Your task to perform on an android device: Open calendar and show me the third week of next month Image 0: 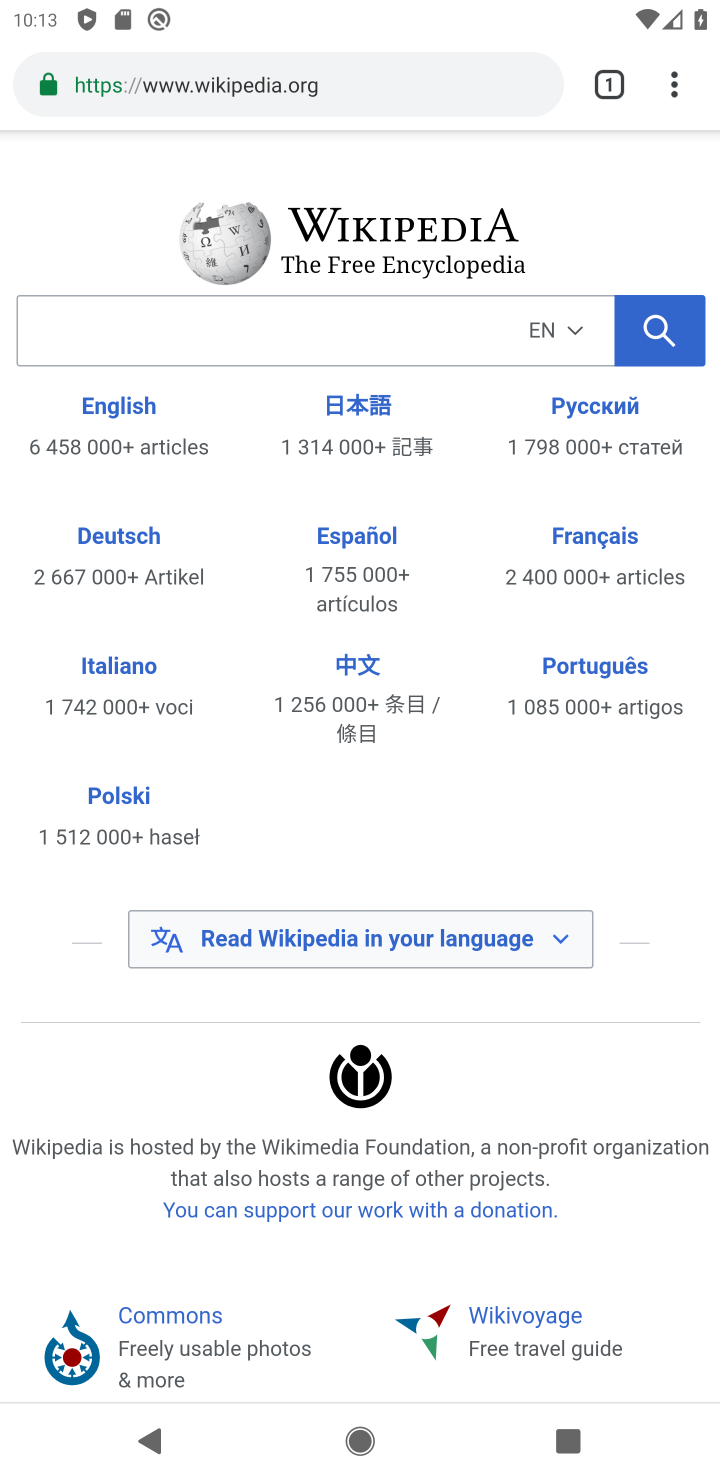
Step 0: press home button
Your task to perform on an android device: Open calendar and show me the third week of next month Image 1: 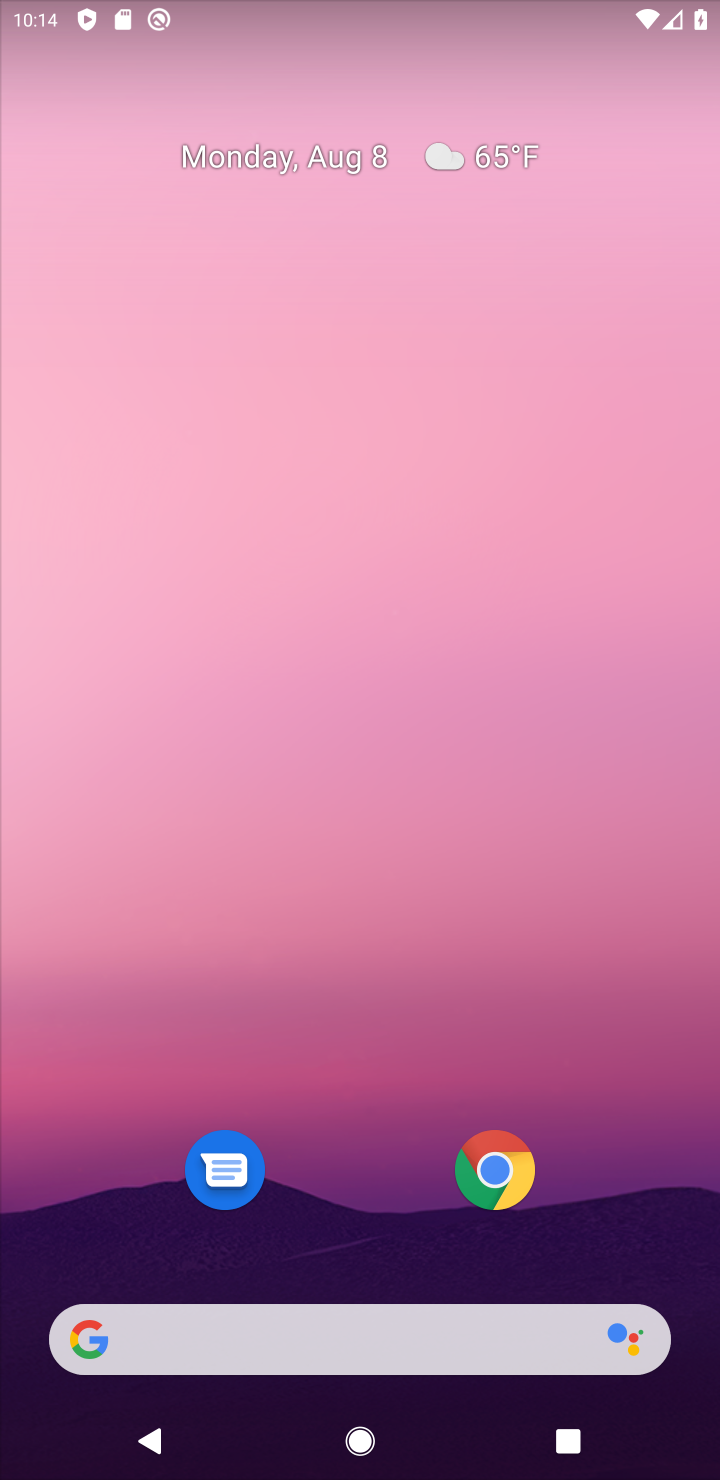
Step 1: drag from (399, 1292) to (376, 443)
Your task to perform on an android device: Open calendar and show me the third week of next month Image 2: 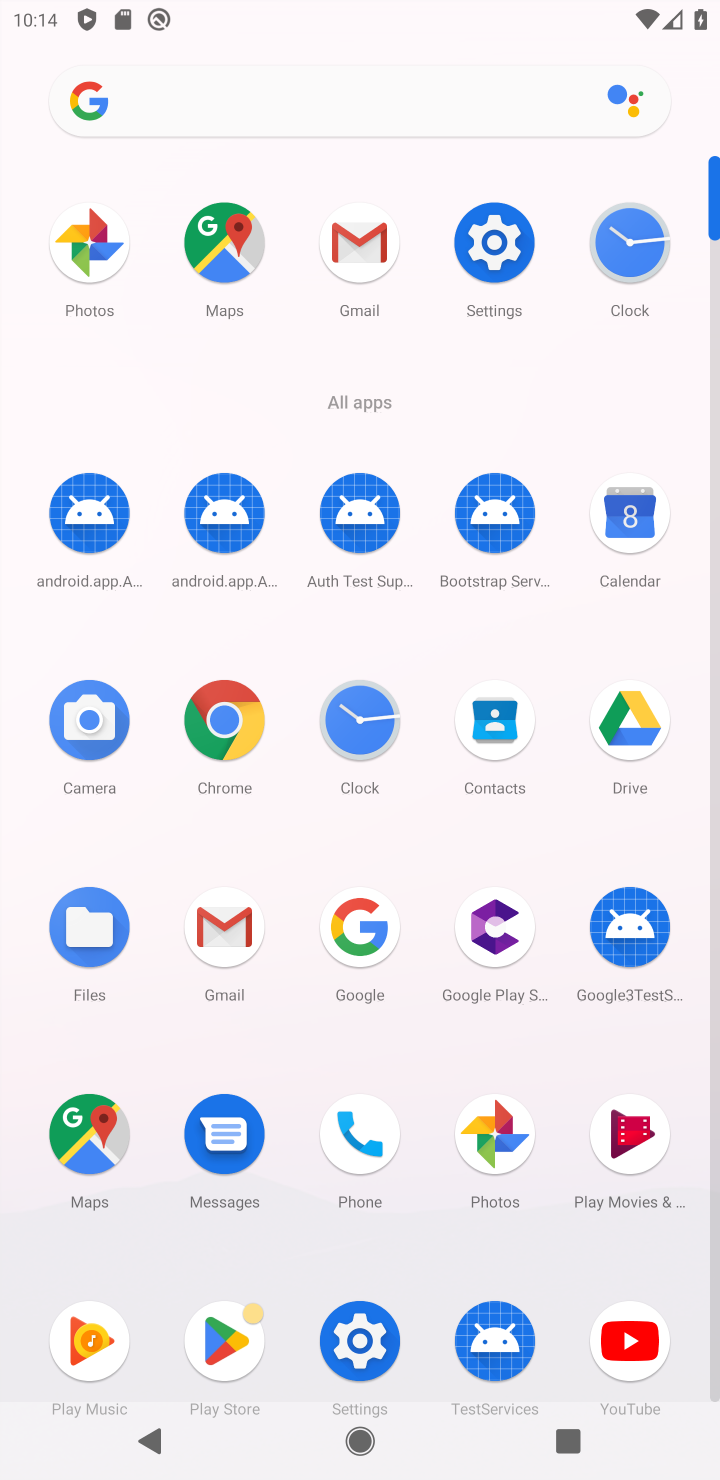
Step 2: click (630, 504)
Your task to perform on an android device: Open calendar and show me the third week of next month Image 3: 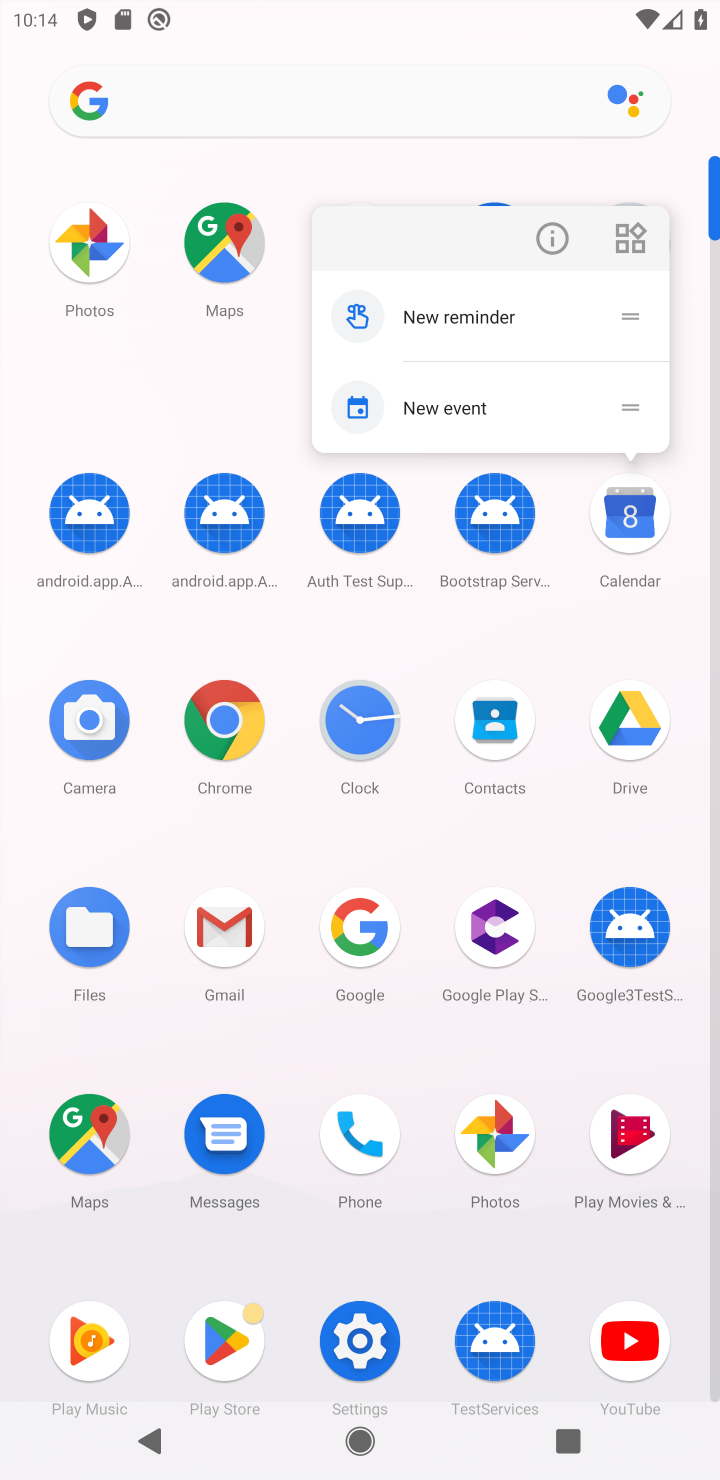
Step 3: click (630, 504)
Your task to perform on an android device: Open calendar and show me the third week of next month Image 4: 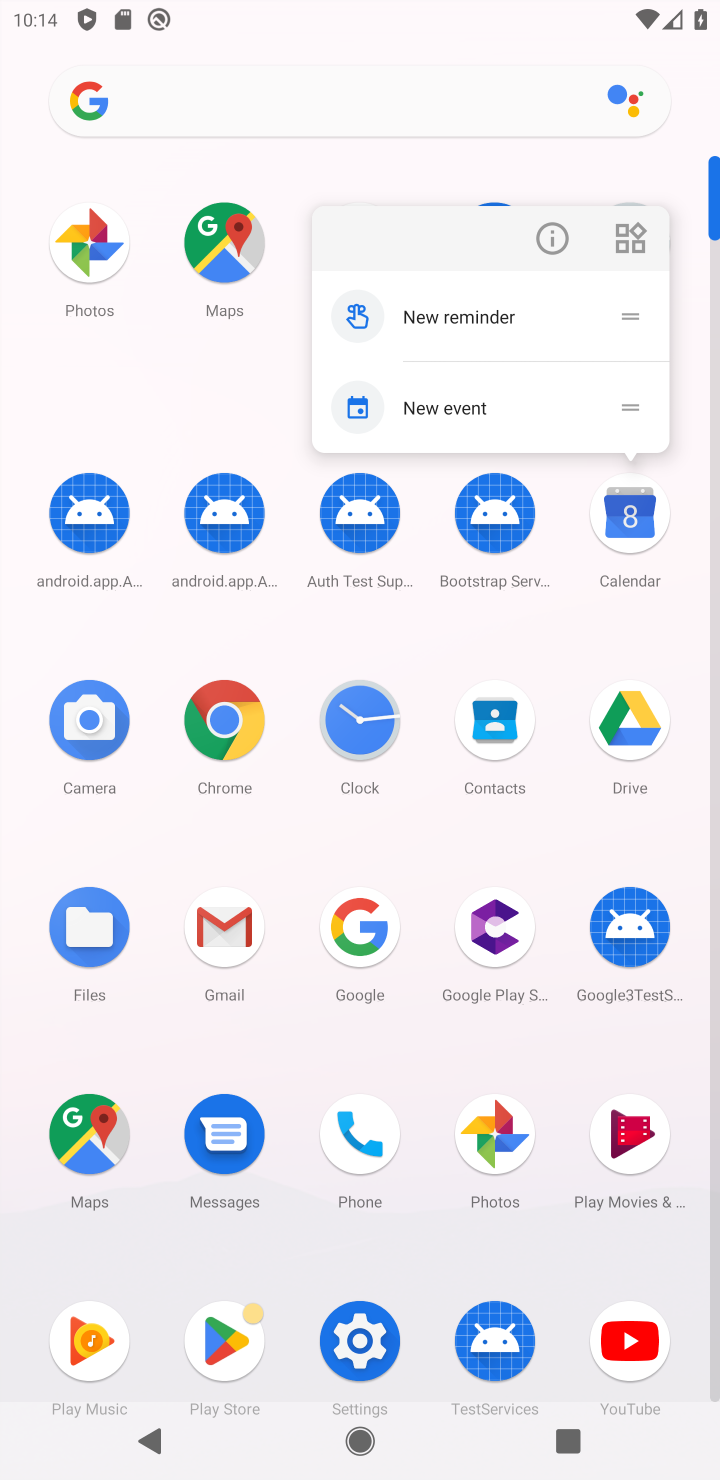
Step 4: click (645, 530)
Your task to perform on an android device: Open calendar and show me the third week of next month Image 5: 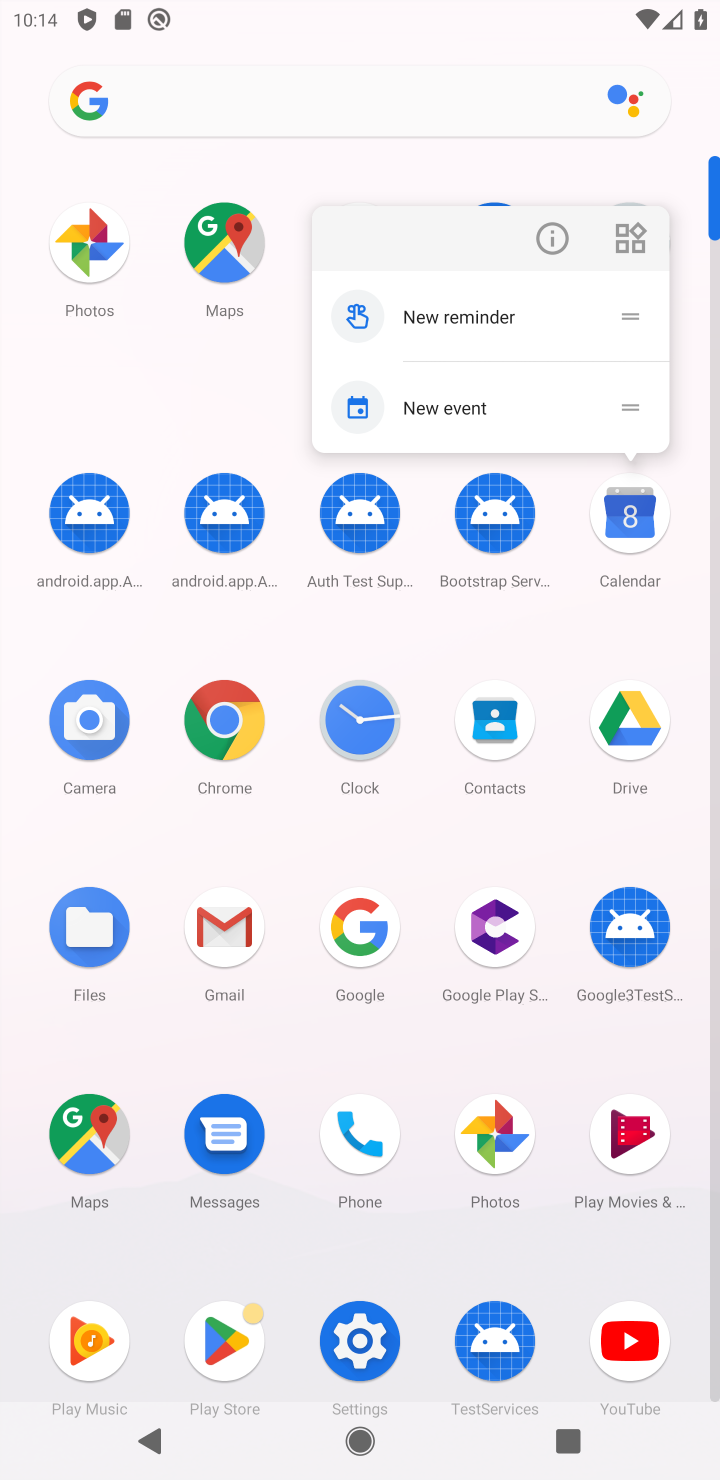
Step 5: click (645, 524)
Your task to perform on an android device: Open calendar and show me the third week of next month Image 6: 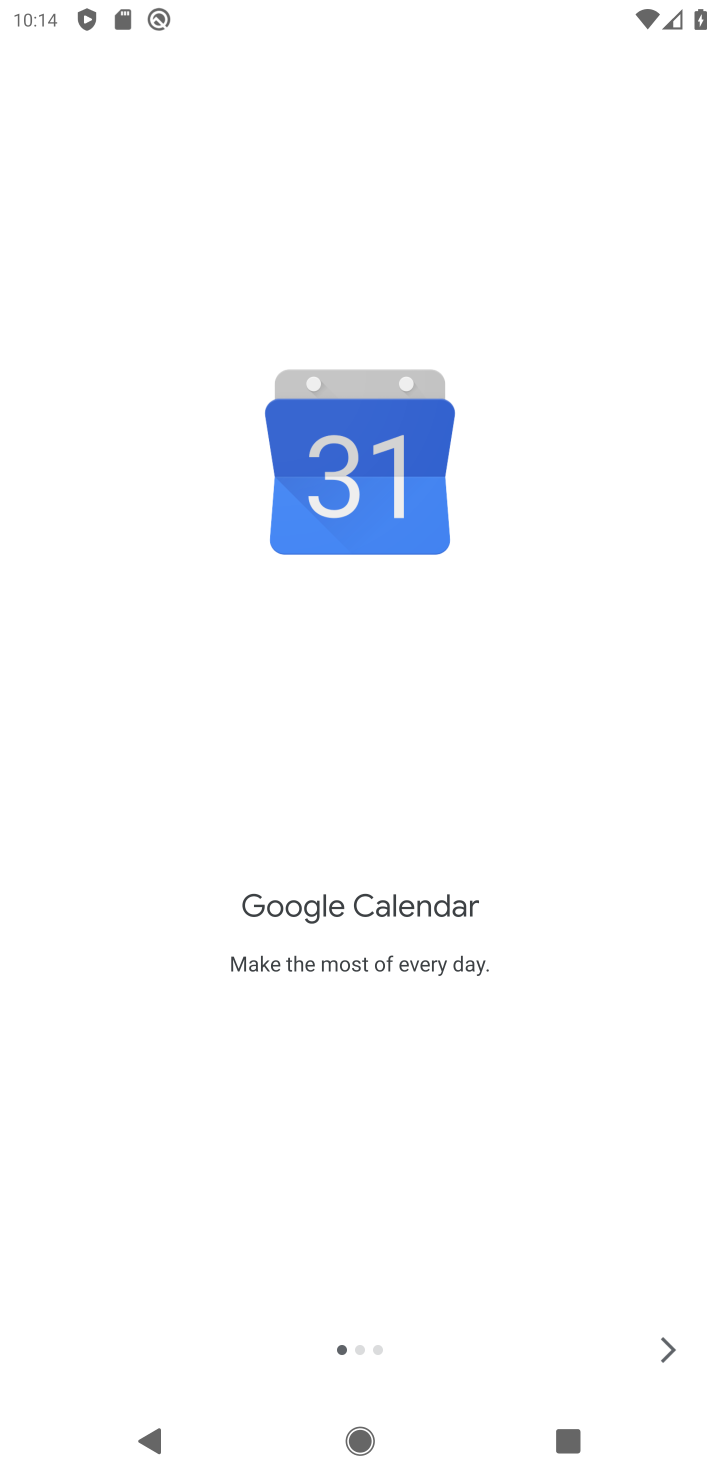
Step 6: click (658, 1357)
Your task to perform on an android device: Open calendar and show me the third week of next month Image 7: 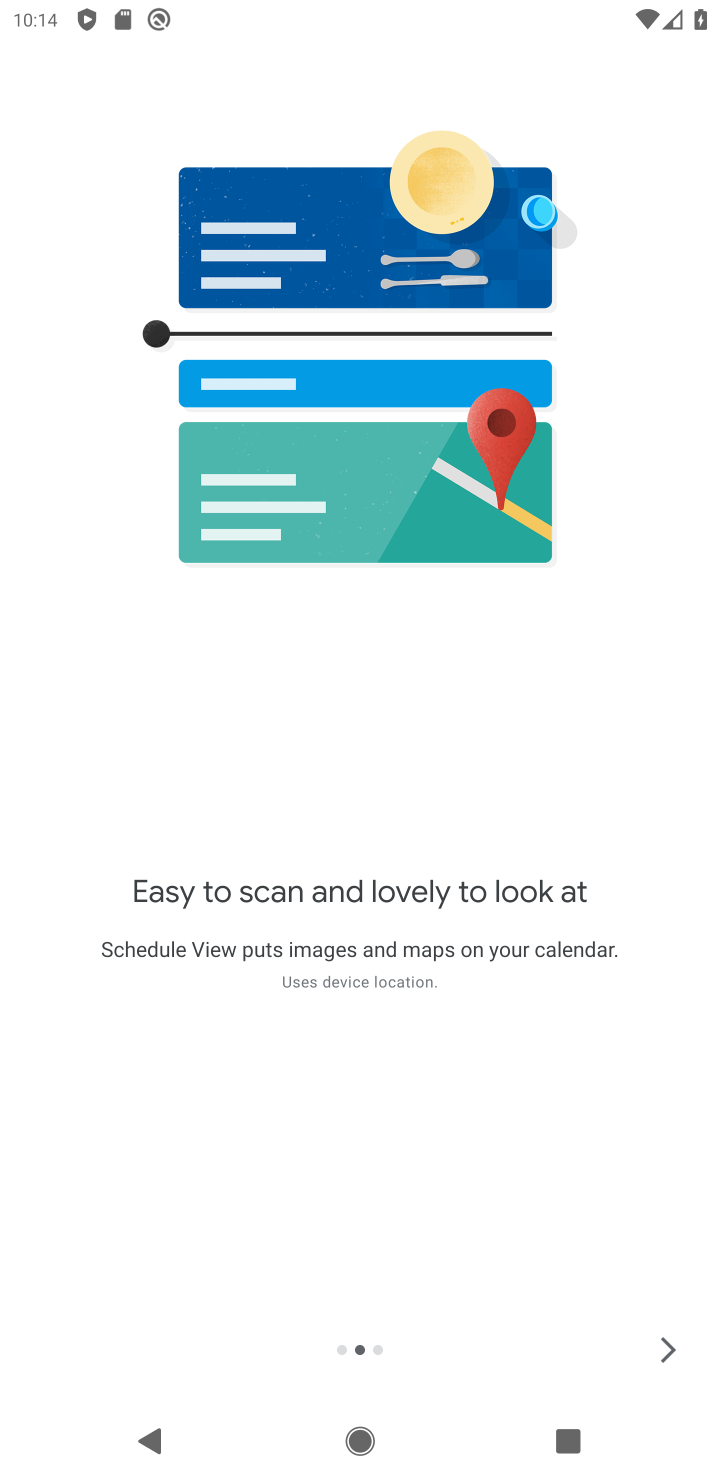
Step 7: click (658, 1357)
Your task to perform on an android device: Open calendar and show me the third week of next month Image 8: 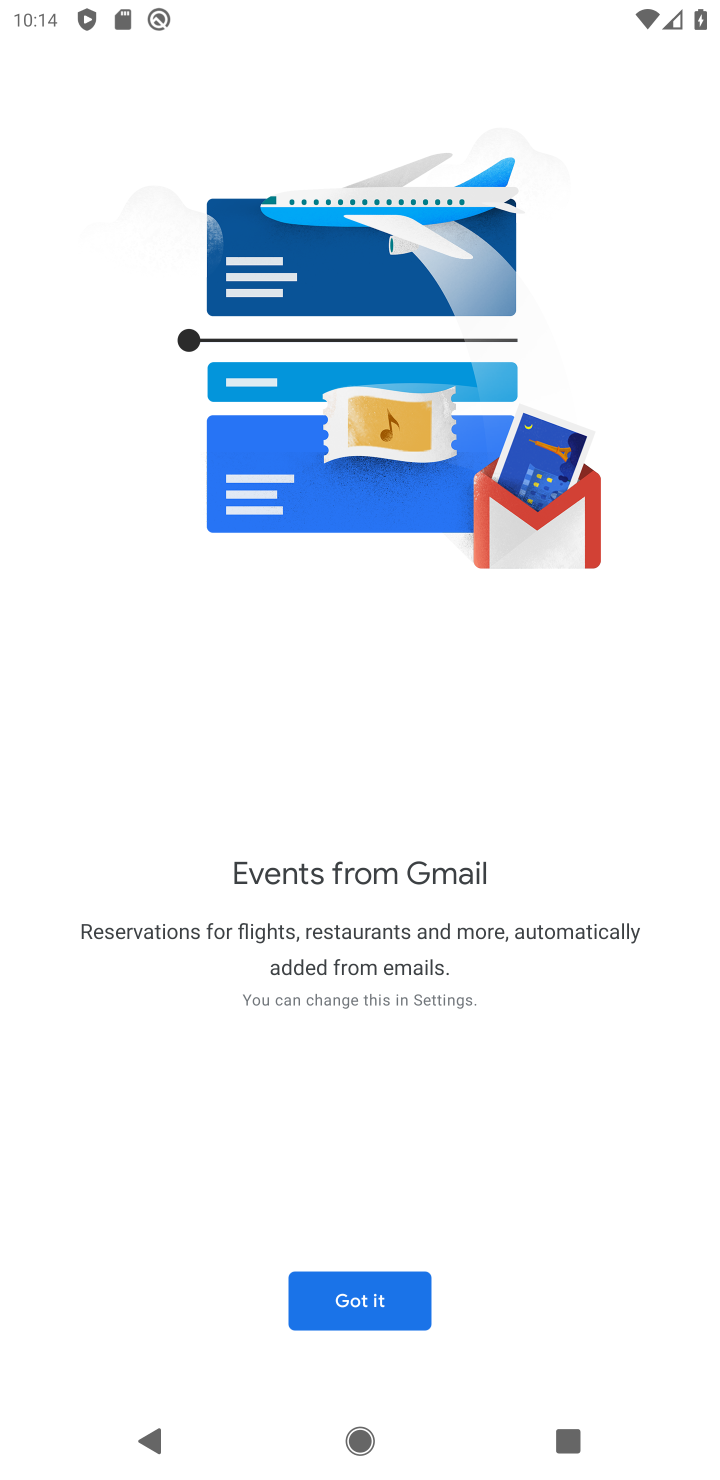
Step 8: click (337, 1303)
Your task to perform on an android device: Open calendar and show me the third week of next month Image 9: 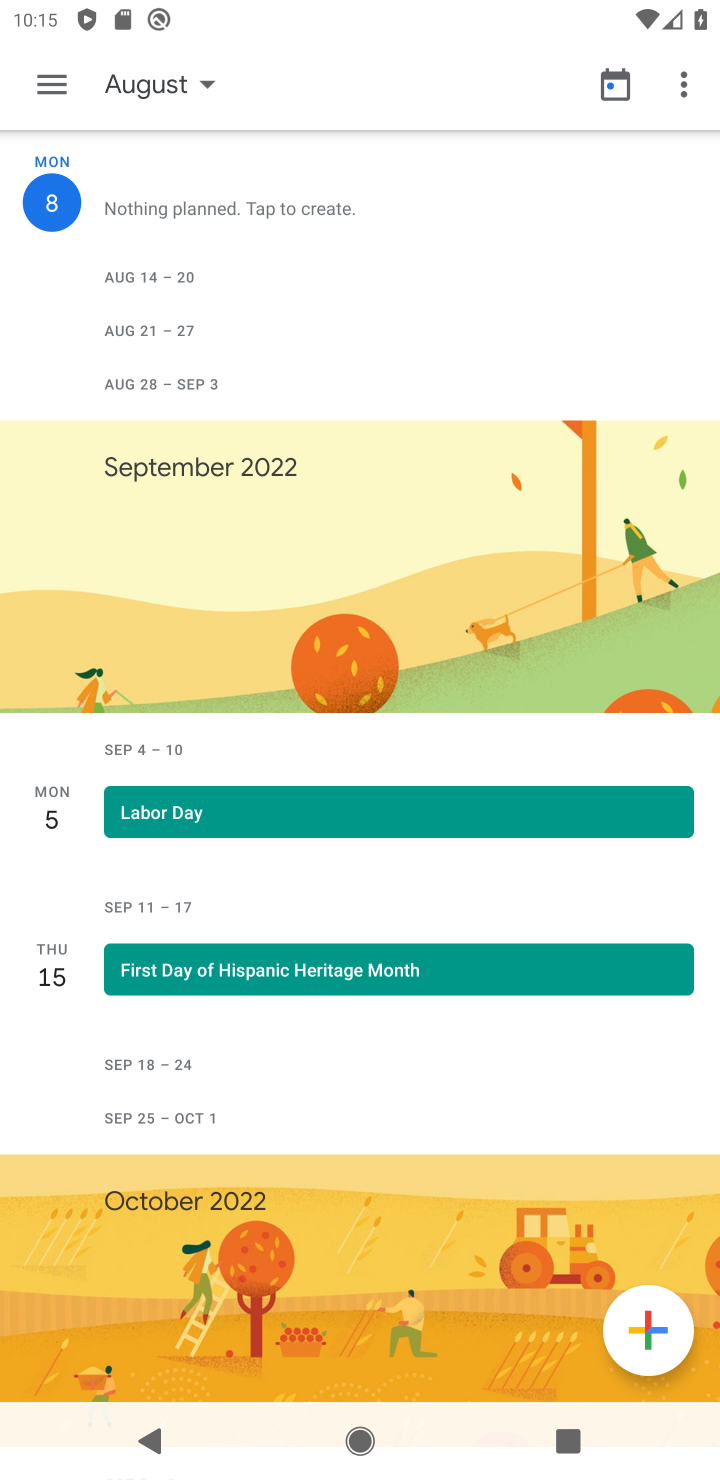
Step 9: click (187, 89)
Your task to perform on an android device: Open calendar and show me the third week of next month Image 10: 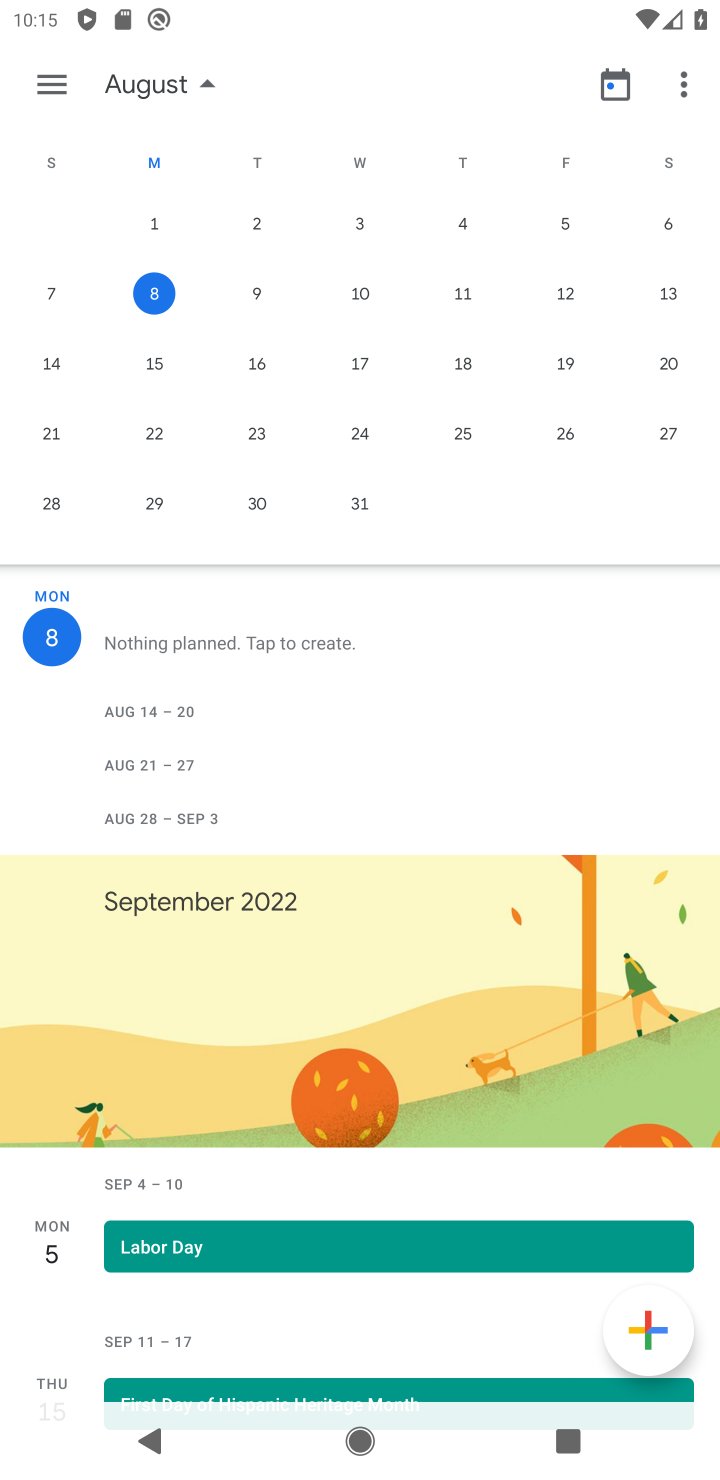
Step 10: drag from (467, 389) to (42, 311)
Your task to perform on an android device: Open calendar and show me the third week of next month Image 11: 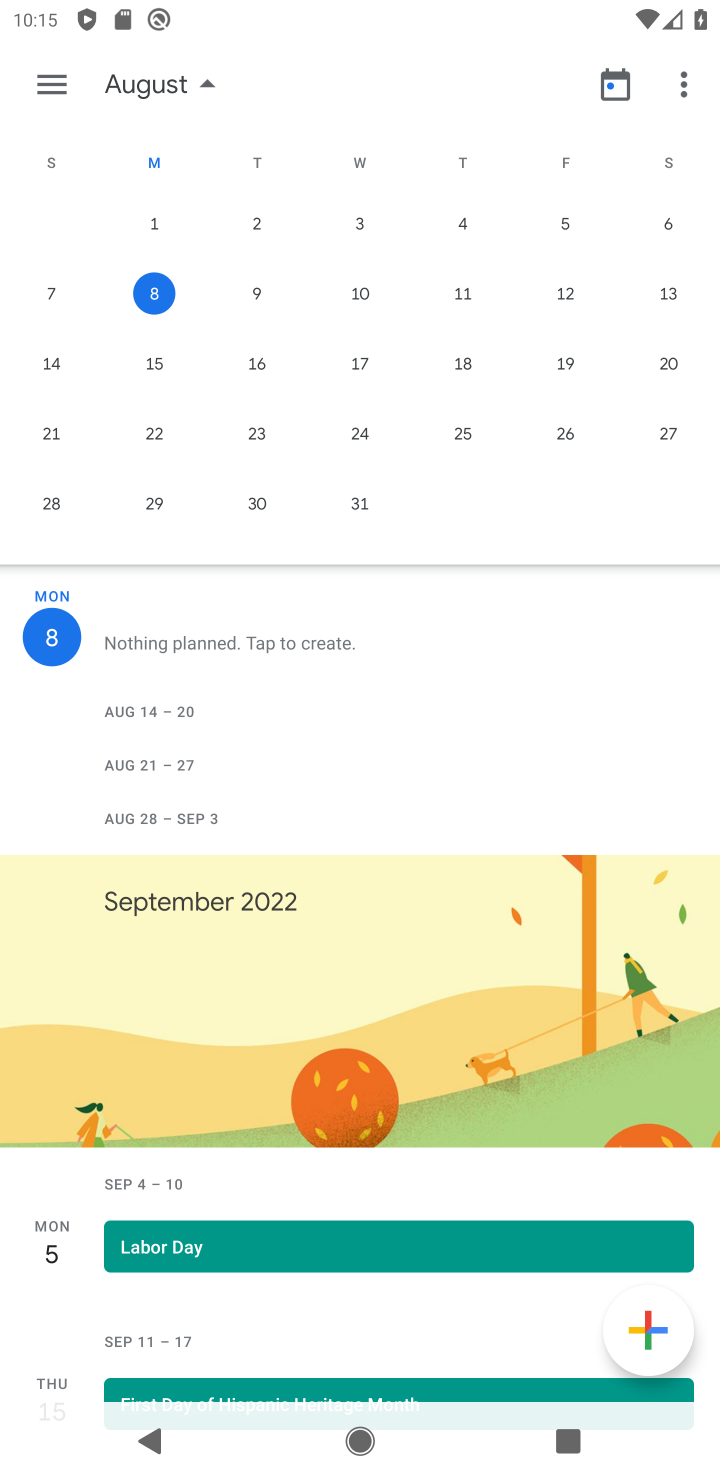
Step 11: click (550, 297)
Your task to perform on an android device: Open calendar and show me the third week of next month Image 12: 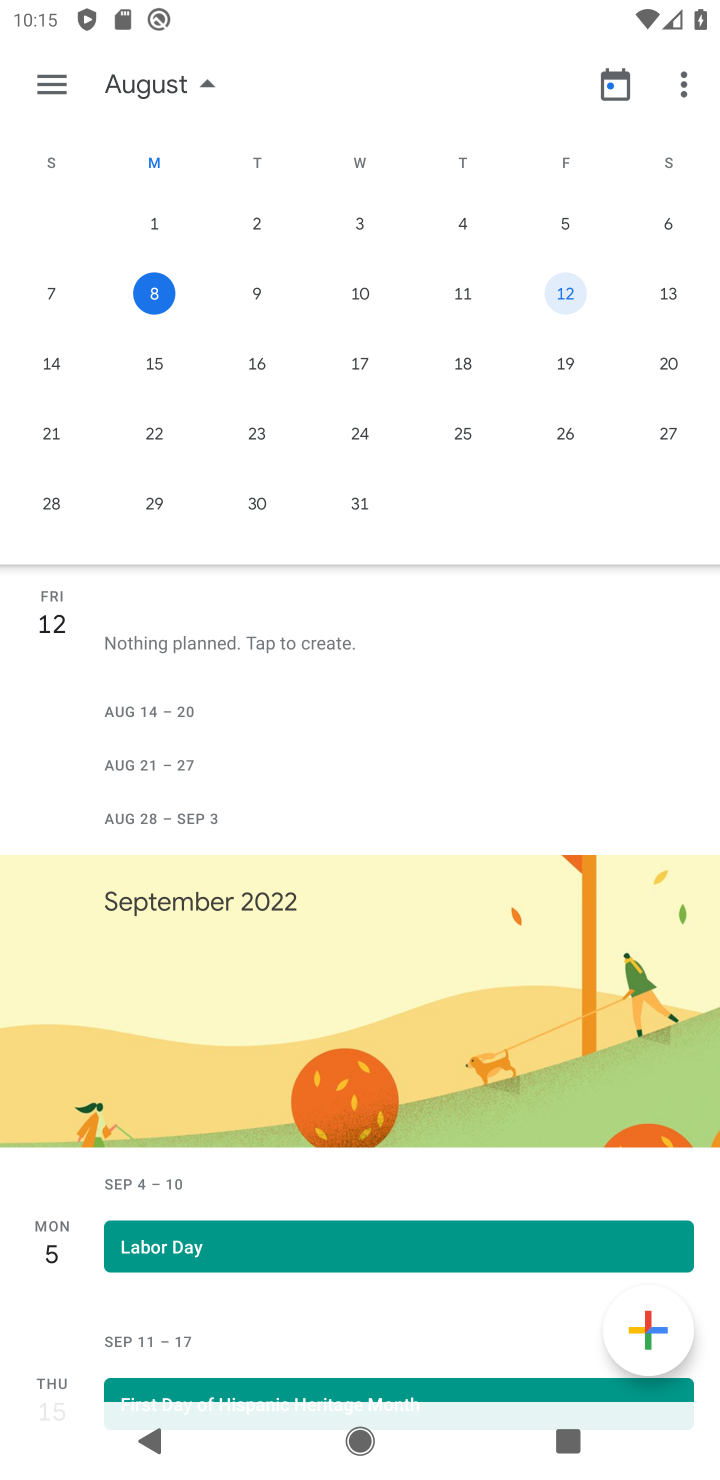
Step 12: click (664, 302)
Your task to perform on an android device: Open calendar and show me the third week of next month Image 13: 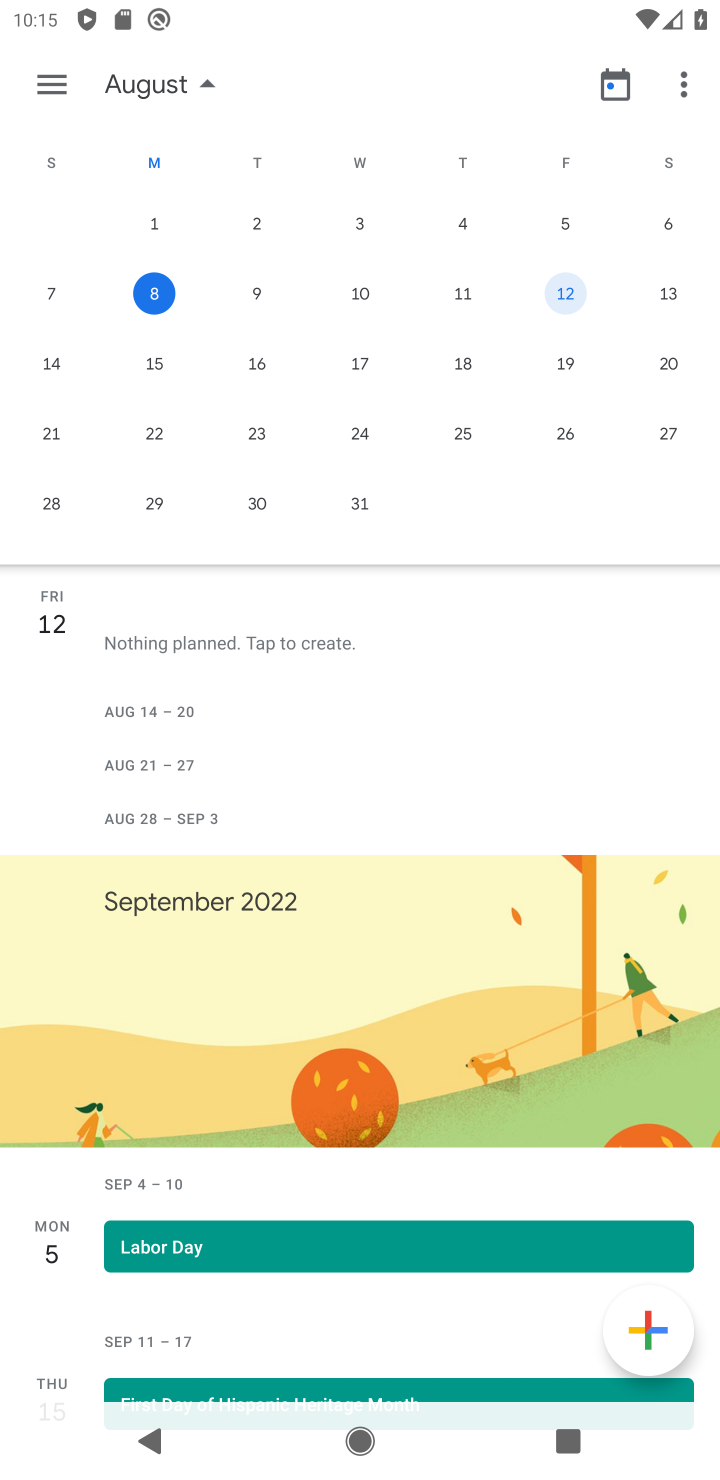
Step 13: click (664, 309)
Your task to perform on an android device: Open calendar and show me the third week of next month Image 14: 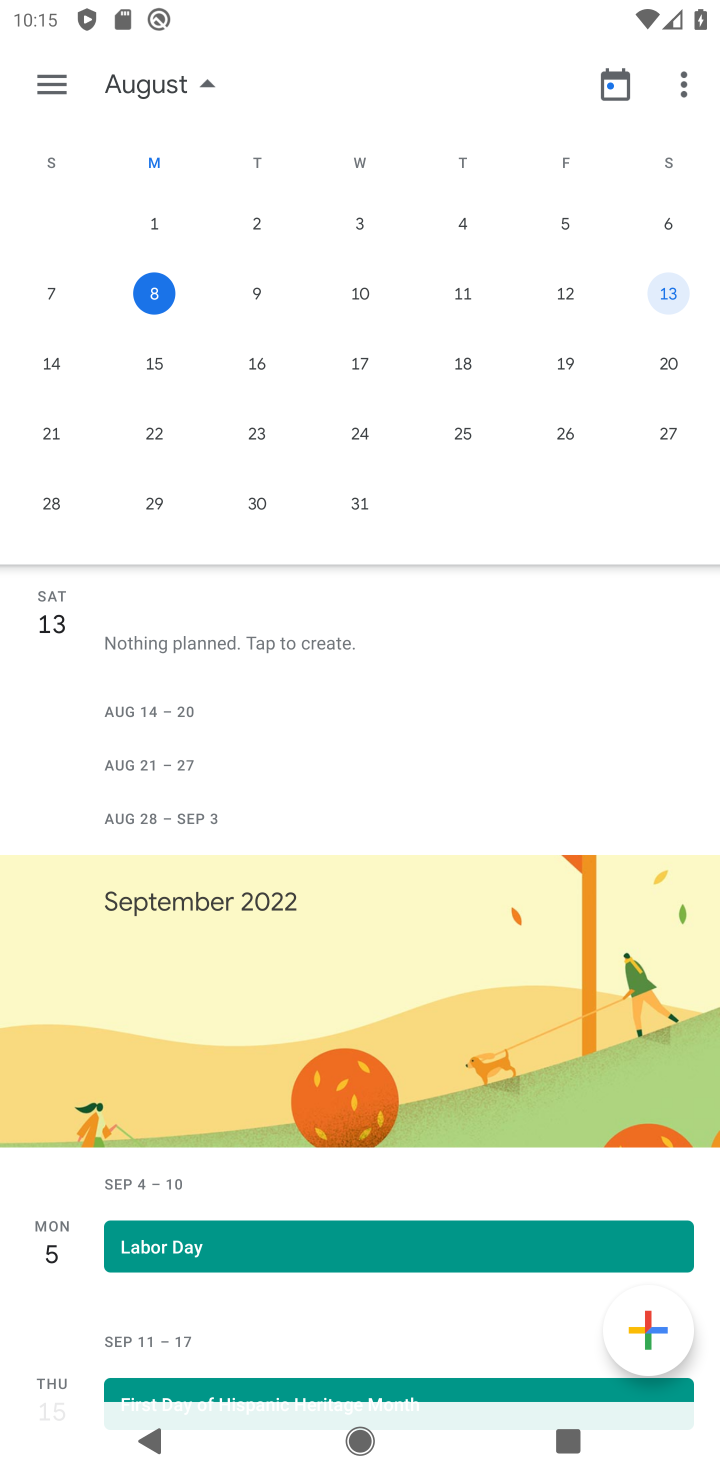
Step 14: click (28, 370)
Your task to perform on an android device: Open calendar and show me the third week of next month Image 15: 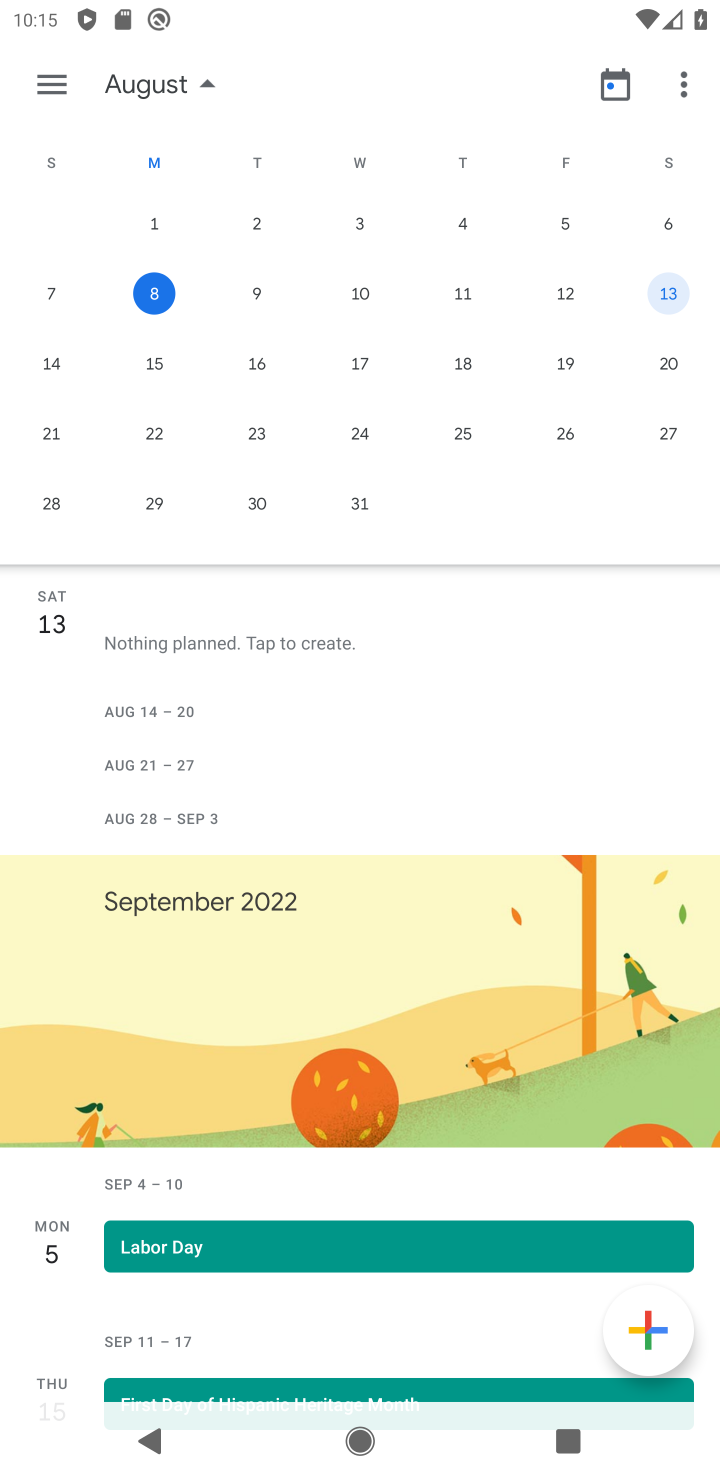
Step 15: click (49, 384)
Your task to perform on an android device: Open calendar and show me the third week of next month Image 16: 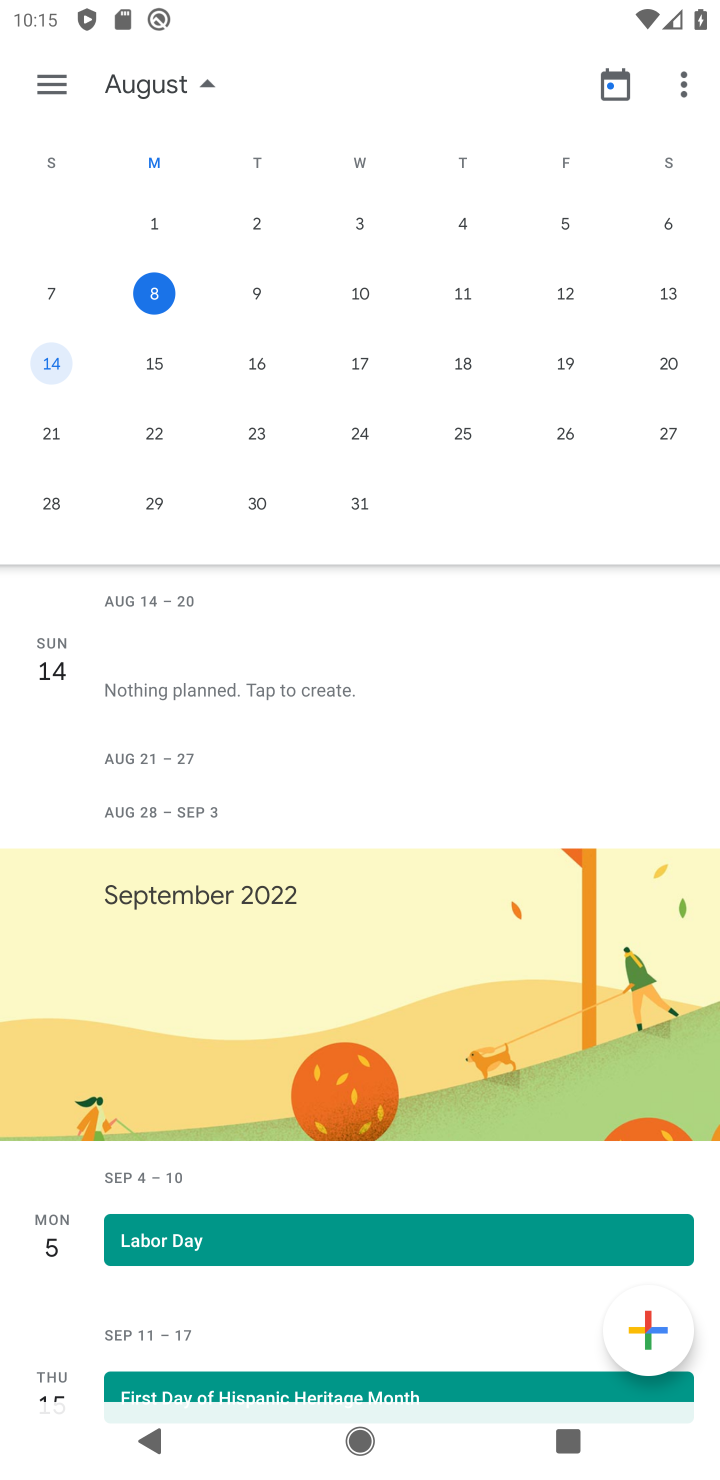
Step 16: click (146, 371)
Your task to perform on an android device: Open calendar and show me the third week of next month Image 17: 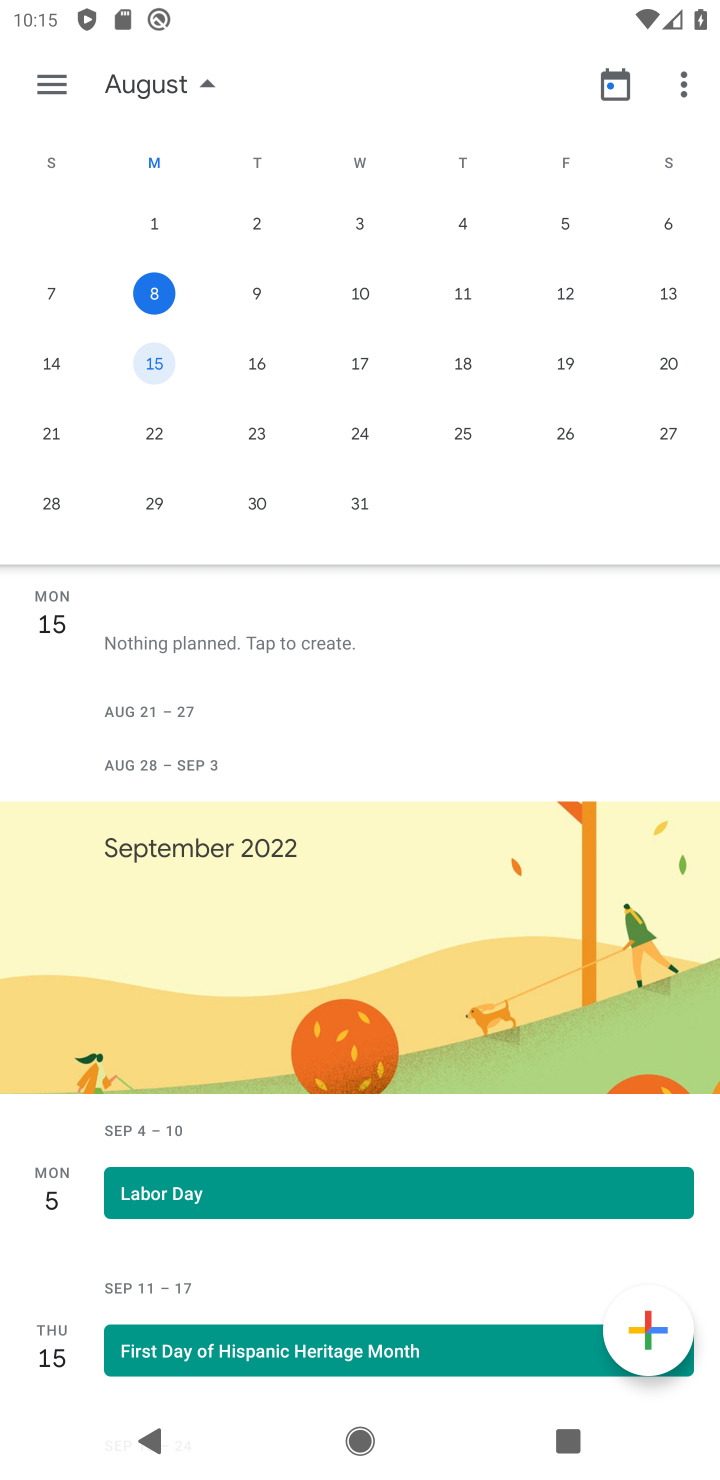
Step 17: click (253, 381)
Your task to perform on an android device: Open calendar and show me the third week of next month Image 18: 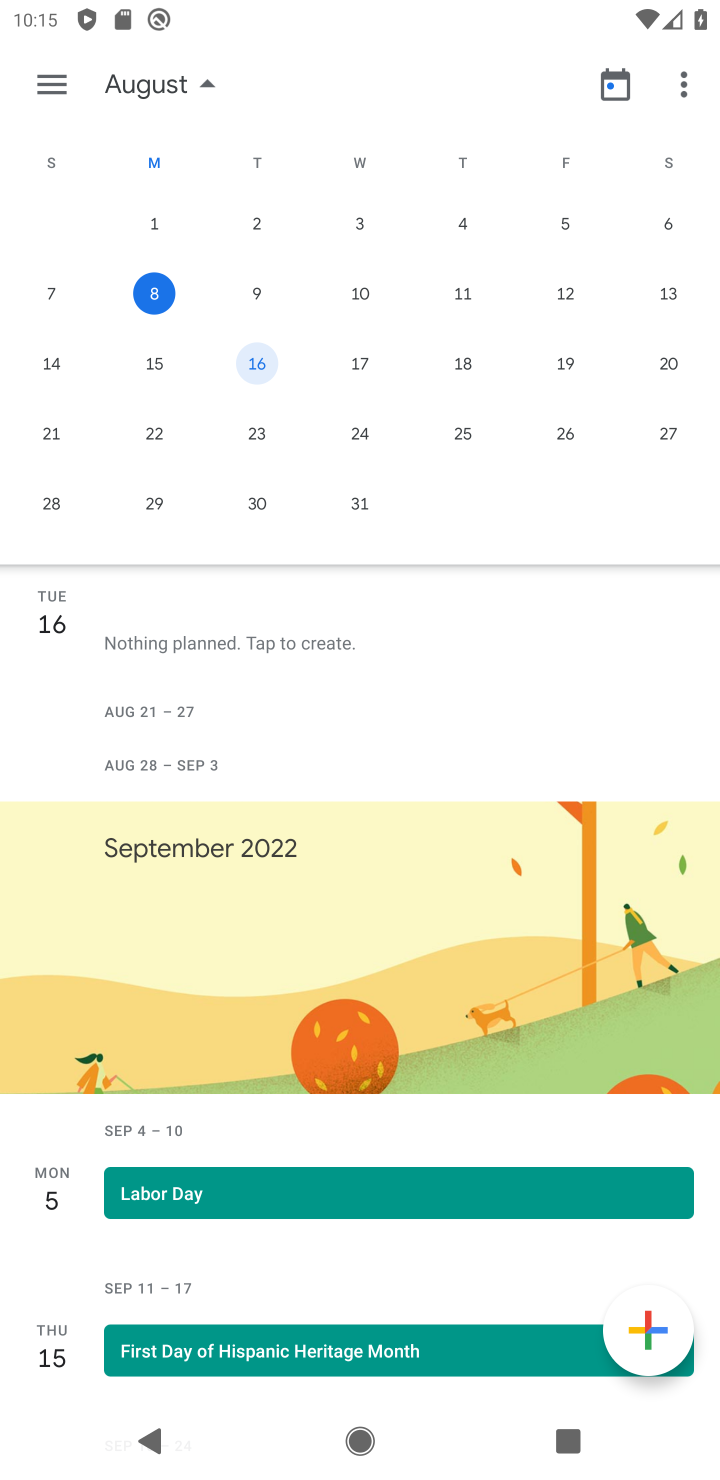
Step 18: click (351, 361)
Your task to perform on an android device: Open calendar and show me the third week of next month Image 19: 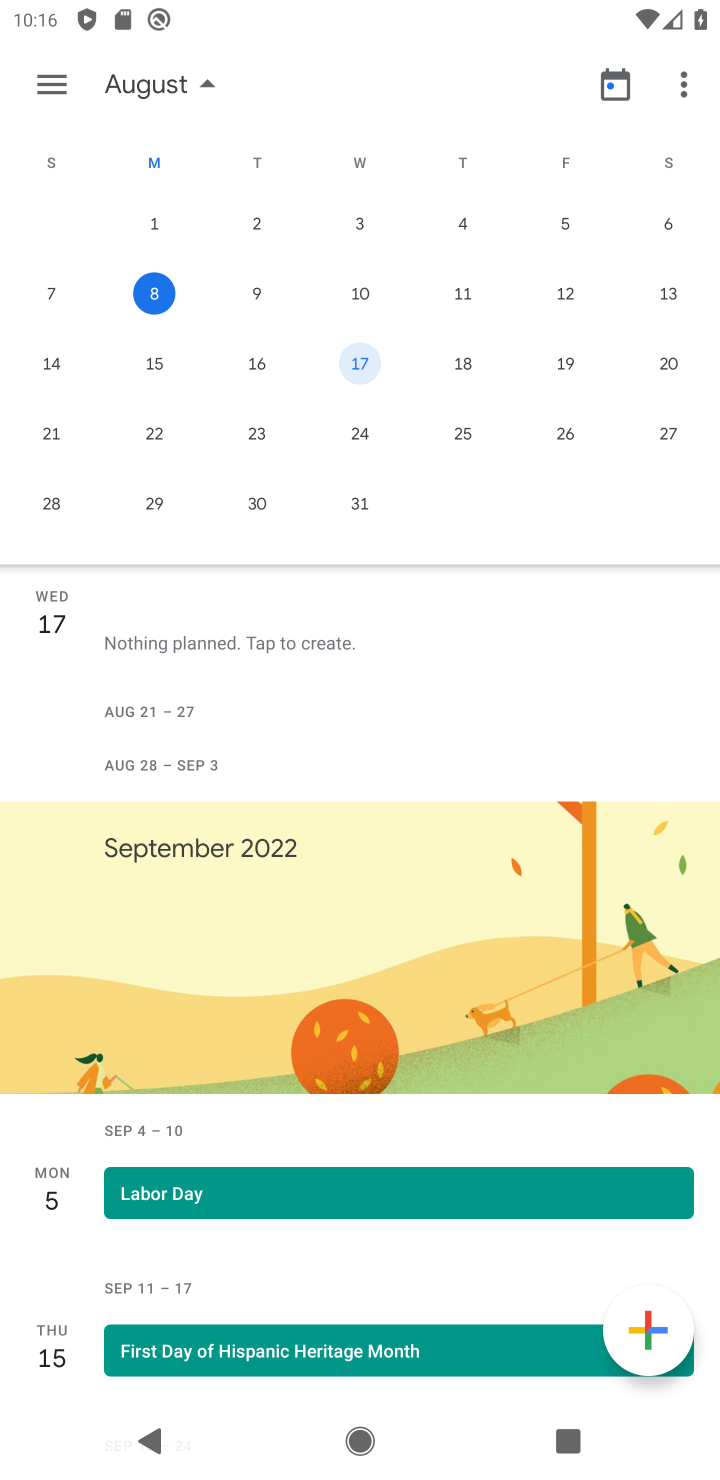
Step 19: click (454, 369)
Your task to perform on an android device: Open calendar and show me the third week of next month Image 20: 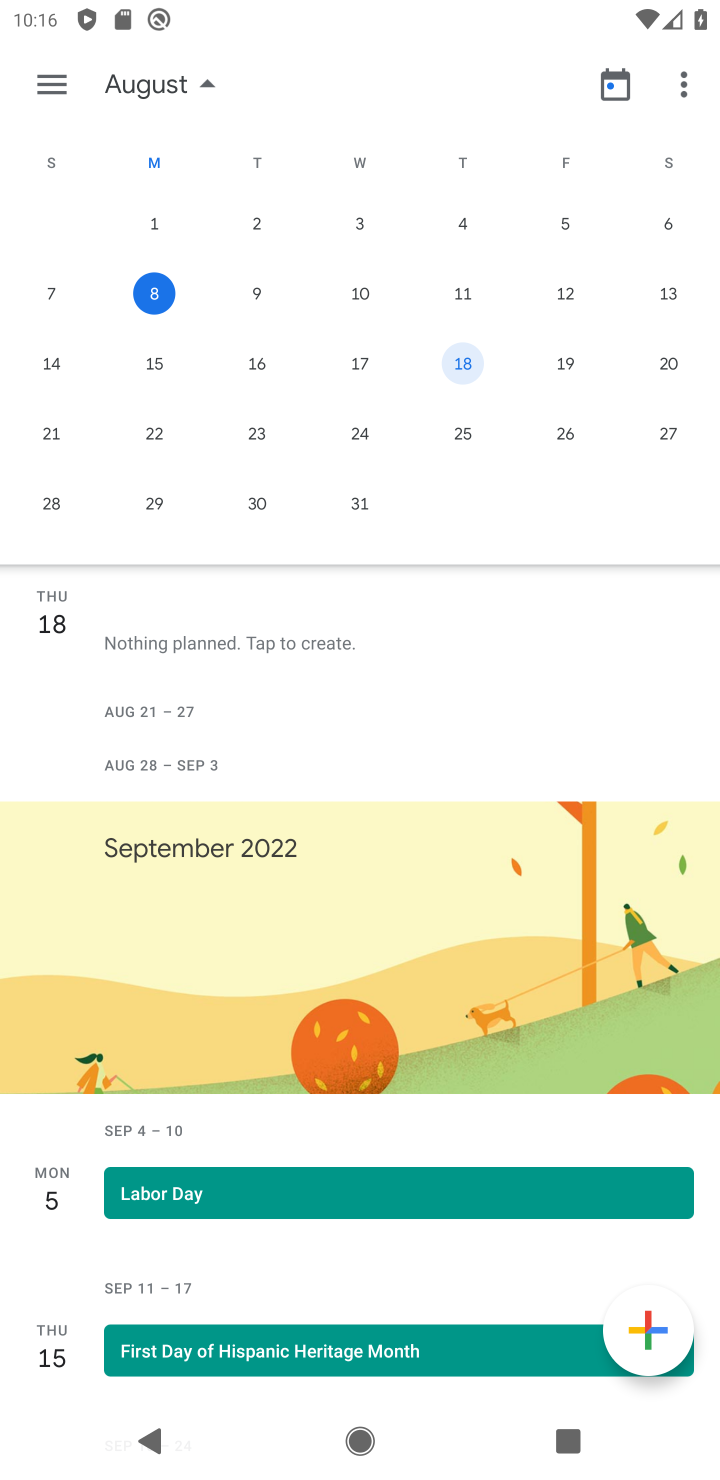
Step 20: task complete